Your task to perform on an android device: What's the weather today? Image 0: 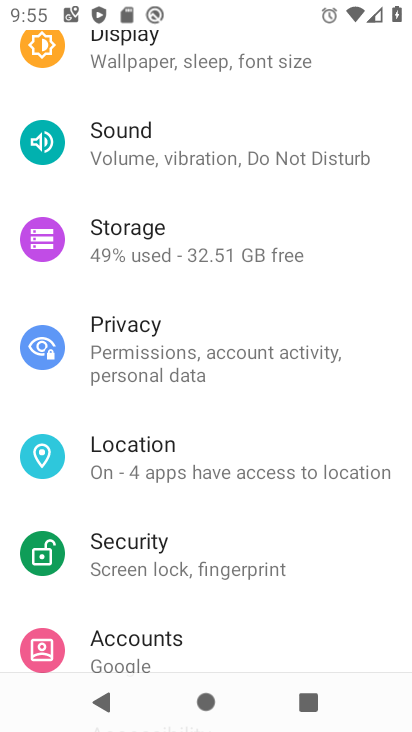
Step 0: press home button
Your task to perform on an android device: What's the weather today? Image 1: 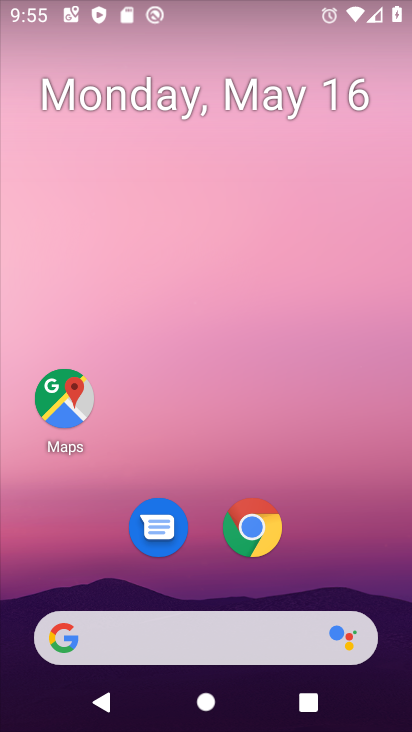
Step 1: click (128, 635)
Your task to perform on an android device: What's the weather today? Image 2: 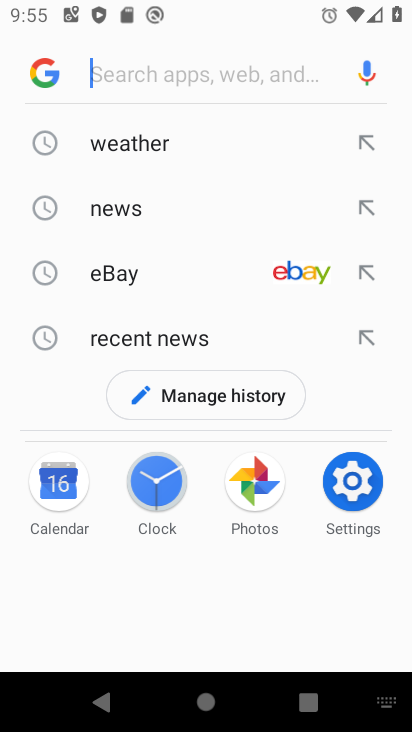
Step 2: click (132, 142)
Your task to perform on an android device: What's the weather today? Image 3: 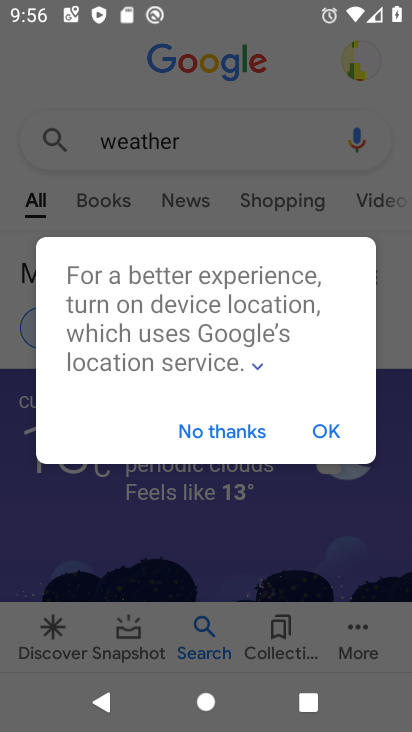
Step 3: click (181, 434)
Your task to perform on an android device: What's the weather today? Image 4: 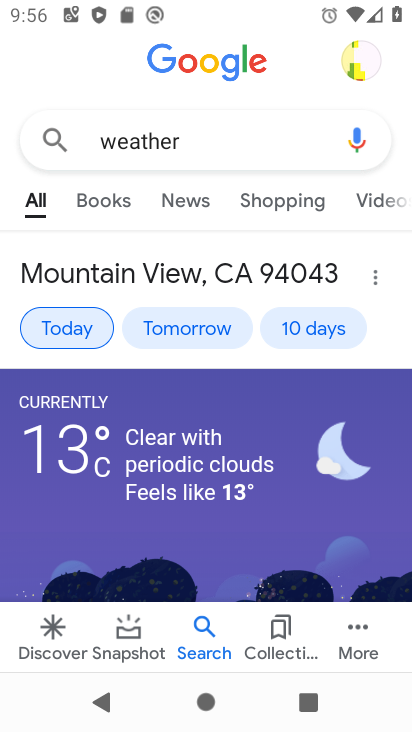
Step 4: task complete